Your task to perform on an android device: open sync settings in chrome Image 0: 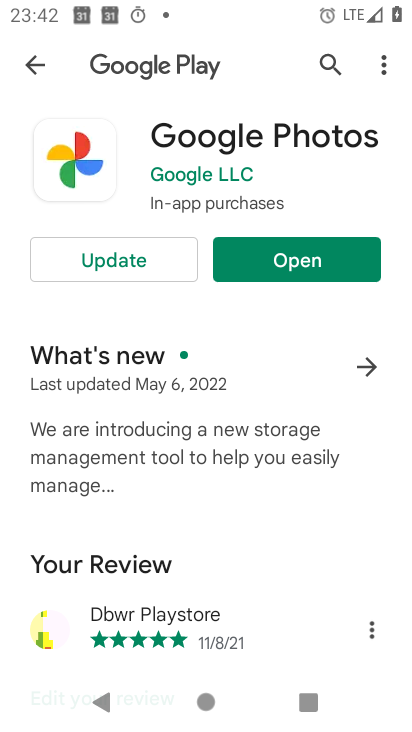
Step 0: press home button
Your task to perform on an android device: open sync settings in chrome Image 1: 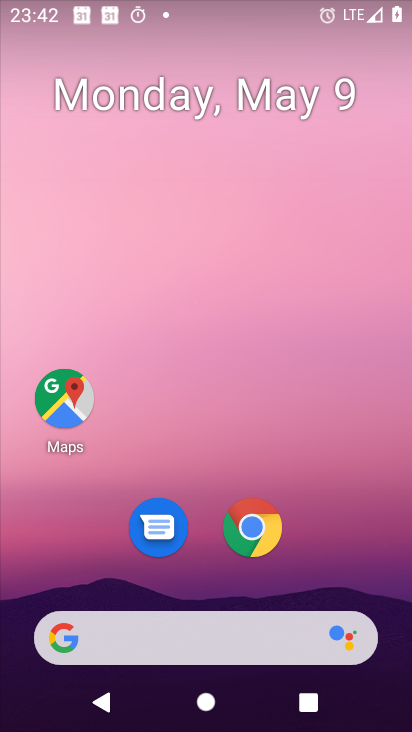
Step 1: click (256, 526)
Your task to perform on an android device: open sync settings in chrome Image 2: 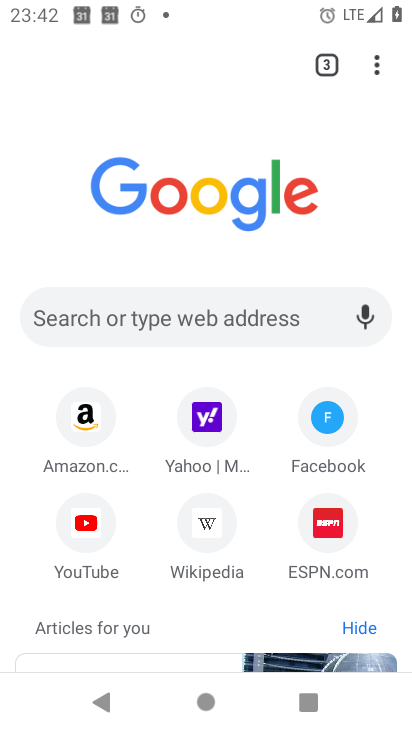
Step 2: click (365, 71)
Your task to perform on an android device: open sync settings in chrome Image 3: 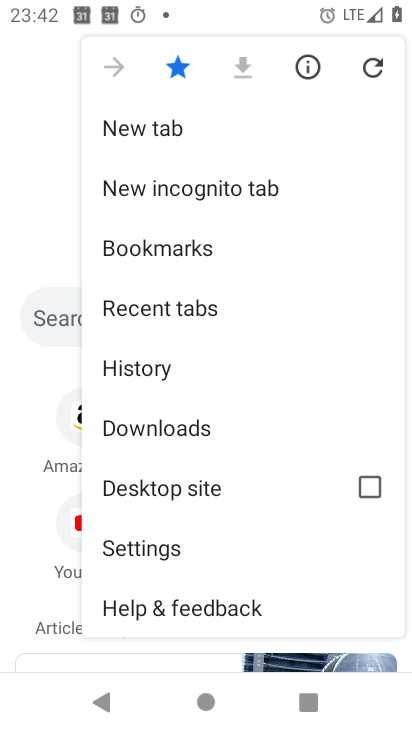
Step 3: drag from (271, 463) to (291, 119)
Your task to perform on an android device: open sync settings in chrome Image 4: 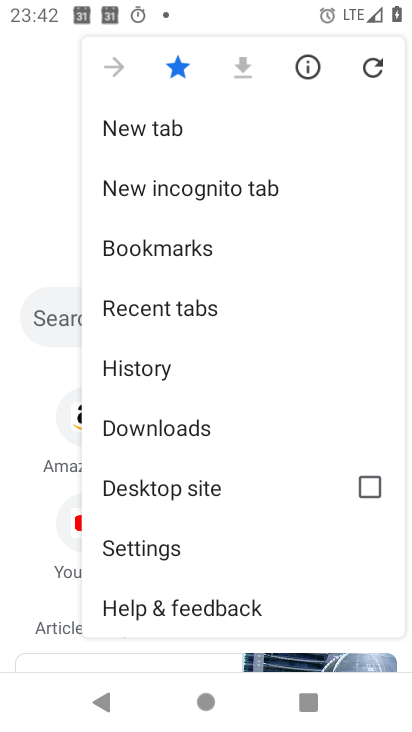
Step 4: click (162, 557)
Your task to perform on an android device: open sync settings in chrome Image 5: 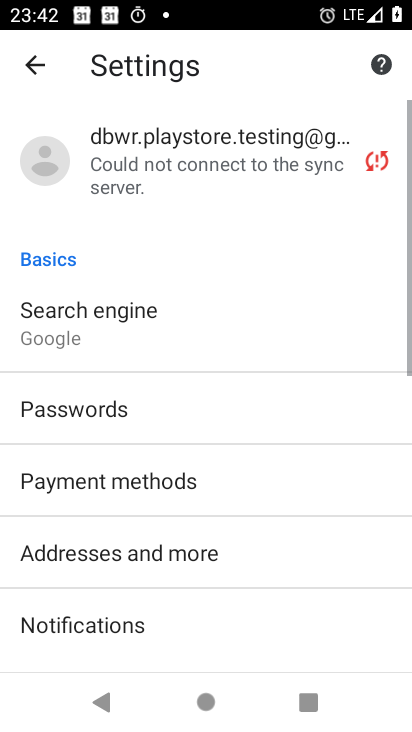
Step 5: drag from (247, 549) to (275, 172)
Your task to perform on an android device: open sync settings in chrome Image 6: 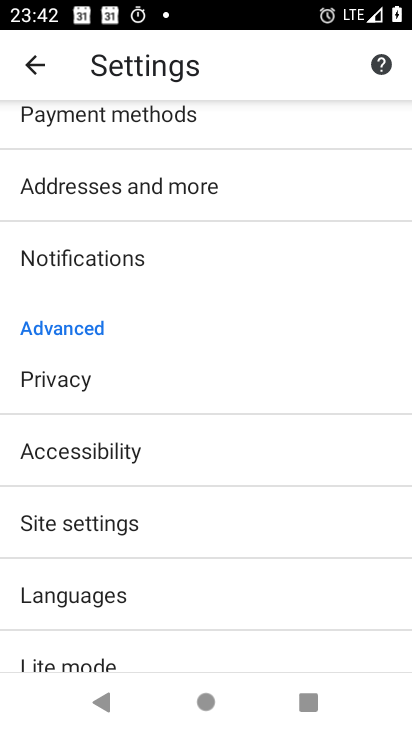
Step 6: click (115, 531)
Your task to perform on an android device: open sync settings in chrome Image 7: 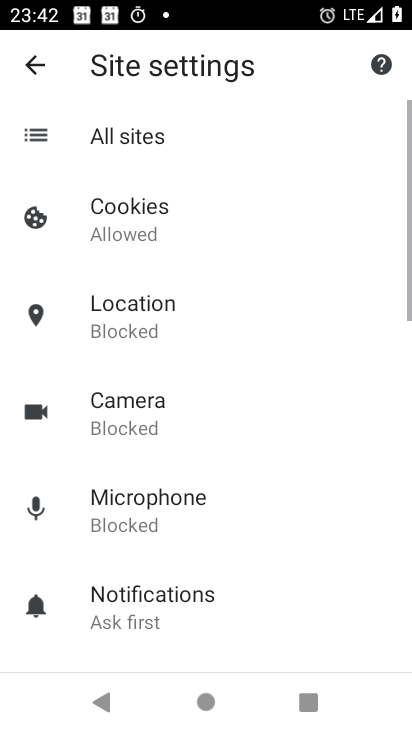
Step 7: drag from (282, 528) to (273, 73)
Your task to perform on an android device: open sync settings in chrome Image 8: 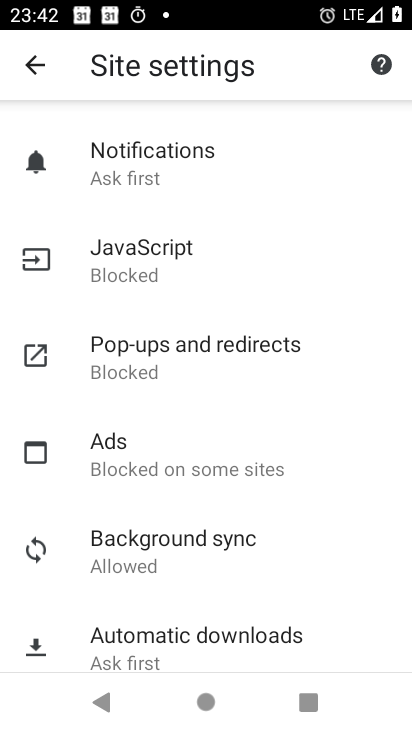
Step 8: click (227, 528)
Your task to perform on an android device: open sync settings in chrome Image 9: 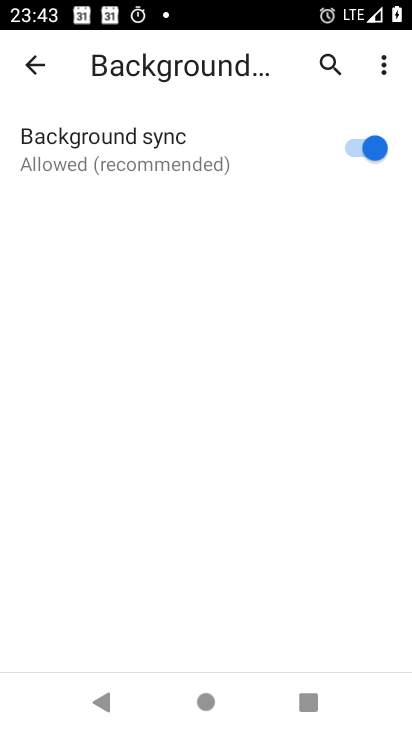
Step 9: task complete